Your task to perform on an android device: Go to settings Image 0: 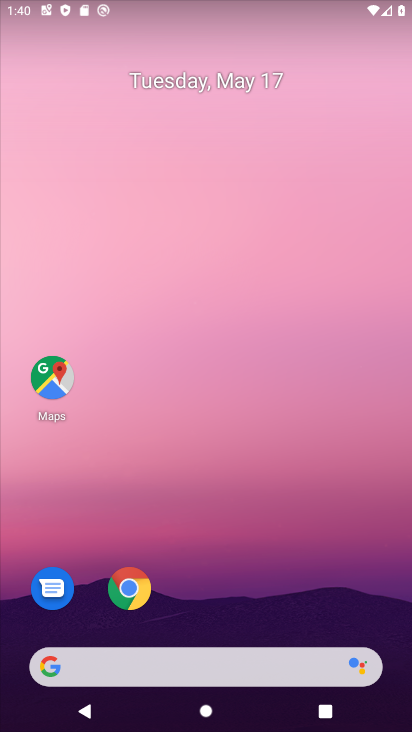
Step 0: click (146, 604)
Your task to perform on an android device: Go to settings Image 1: 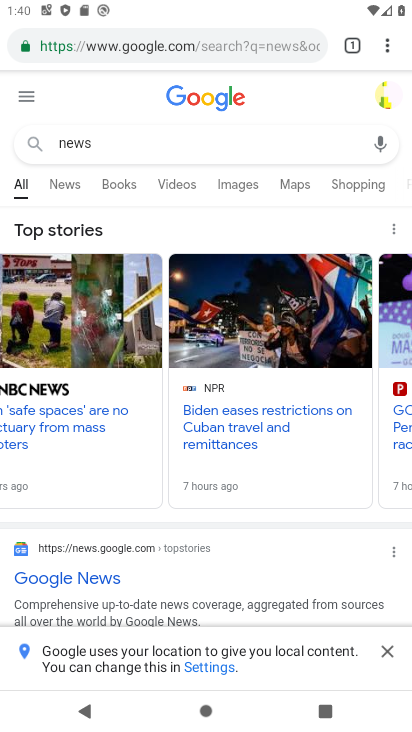
Step 1: click (385, 49)
Your task to perform on an android device: Go to settings Image 2: 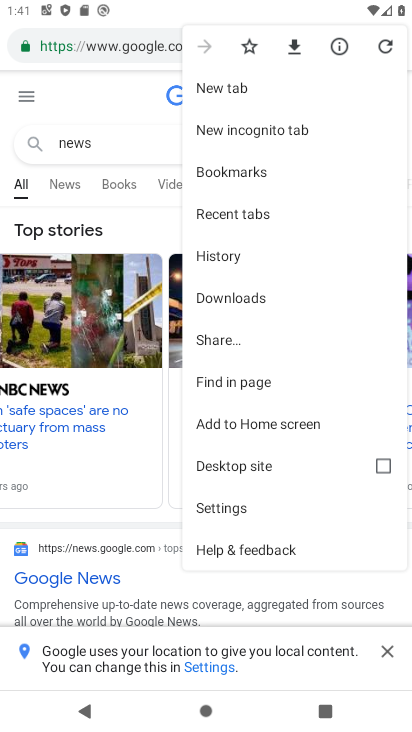
Step 2: click (212, 511)
Your task to perform on an android device: Go to settings Image 3: 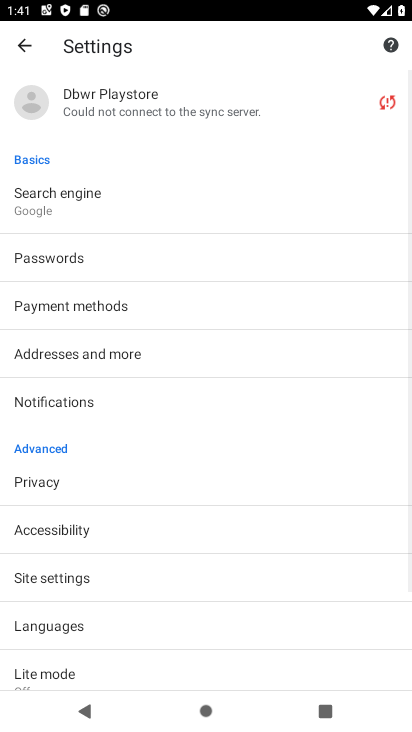
Step 3: drag from (217, 568) to (231, 162)
Your task to perform on an android device: Go to settings Image 4: 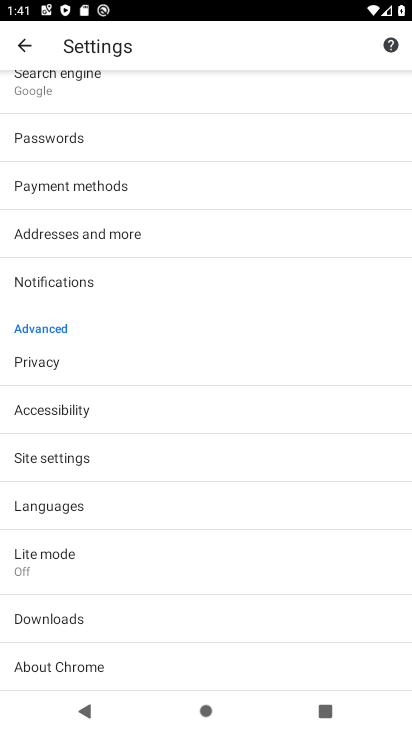
Step 4: click (139, 637)
Your task to perform on an android device: Go to settings Image 5: 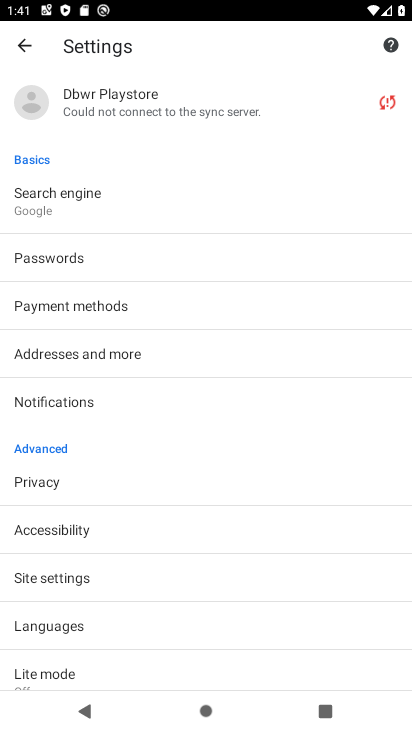
Step 5: task complete